Your task to perform on an android device: turn on bluetooth scan Image 0: 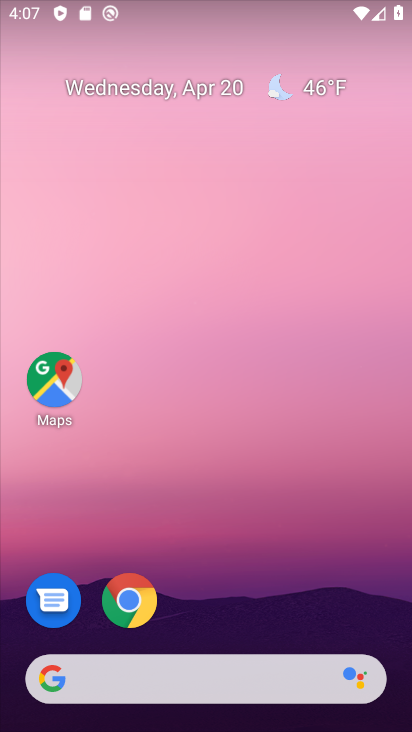
Step 0: drag from (234, 581) to (247, 40)
Your task to perform on an android device: turn on bluetooth scan Image 1: 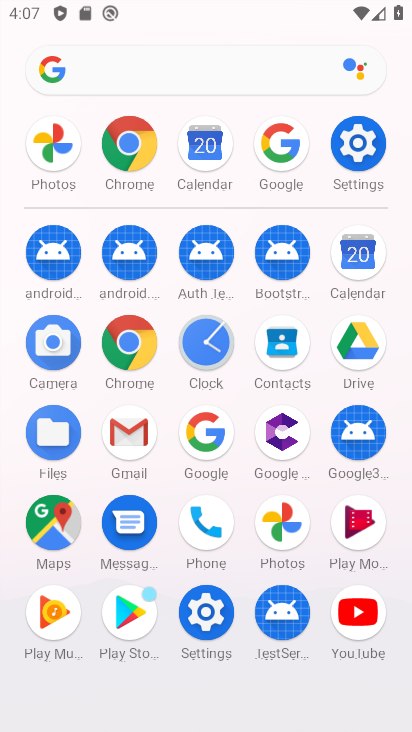
Step 1: click (196, 619)
Your task to perform on an android device: turn on bluetooth scan Image 2: 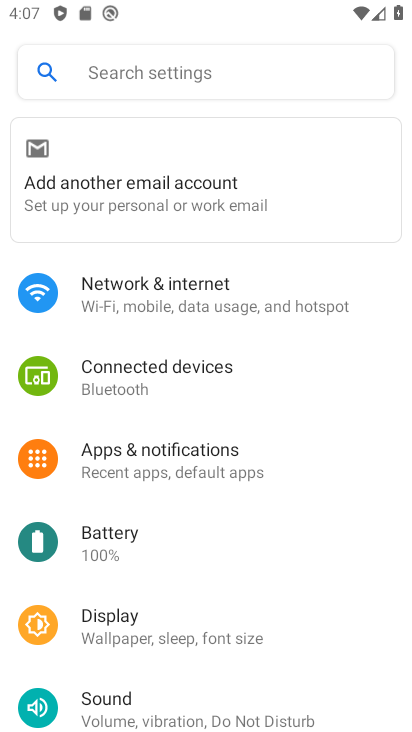
Step 2: drag from (190, 540) to (203, 164)
Your task to perform on an android device: turn on bluetooth scan Image 3: 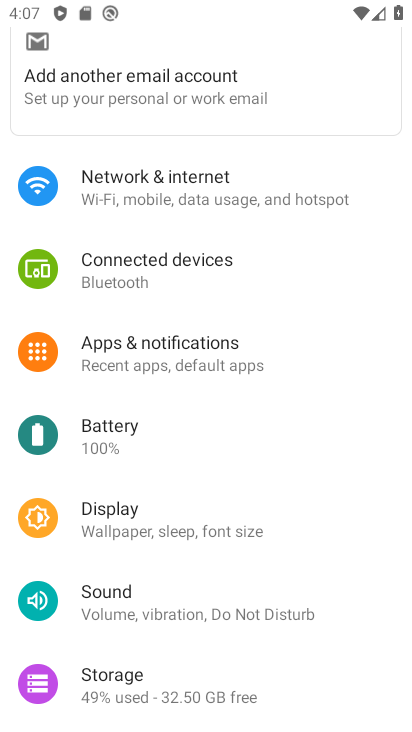
Step 3: drag from (229, 587) to (249, 153)
Your task to perform on an android device: turn on bluetooth scan Image 4: 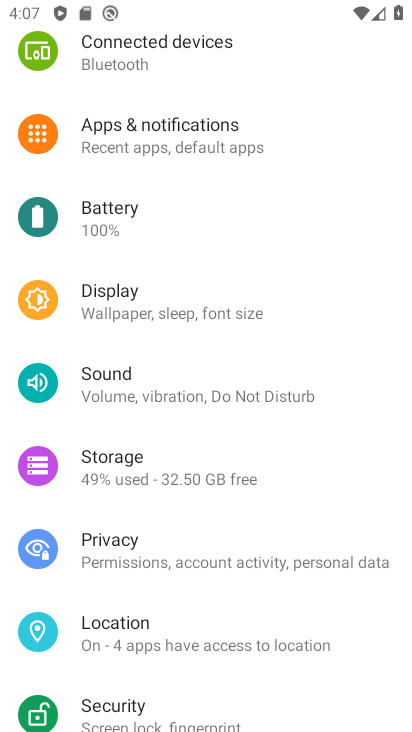
Step 4: drag from (224, 625) to (222, 373)
Your task to perform on an android device: turn on bluetooth scan Image 5: 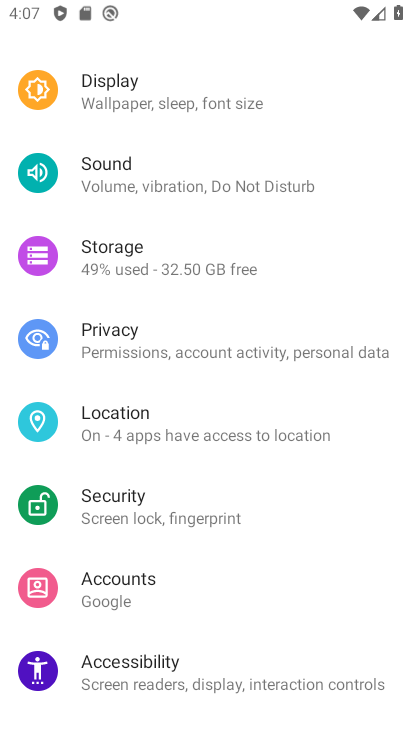
Step 5: click (166, 424)
Your task to perform on an android device: turn on bluetooth scan Image 6: 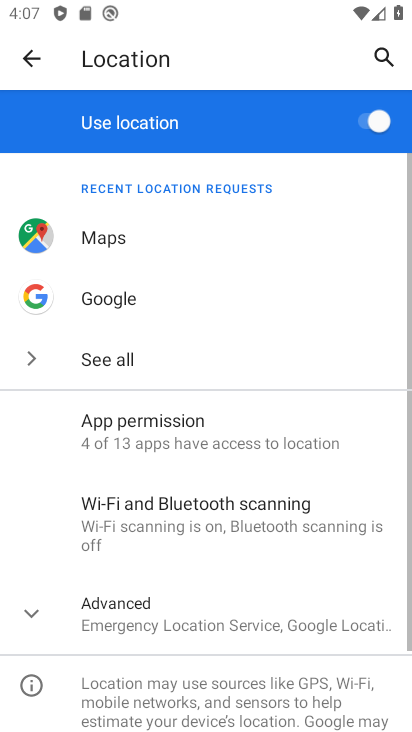
Step 6: click (194, 520)
Your task to perform on an android device: turn on bluetooth scan Image 7: 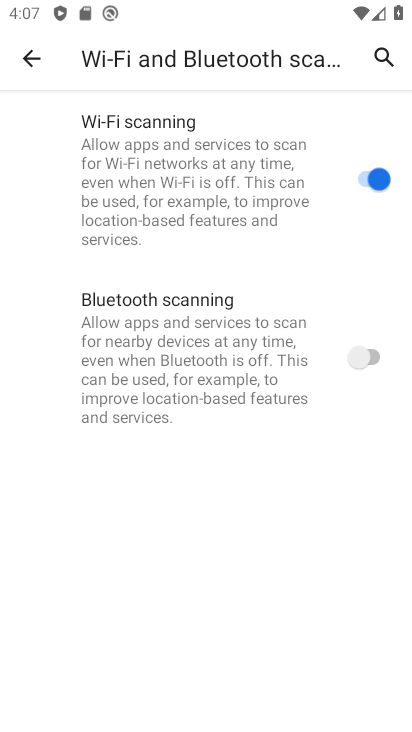
Step 7: click (370, 345)
Your task to perform on an android device: turn on bluetooth scan Image 8: 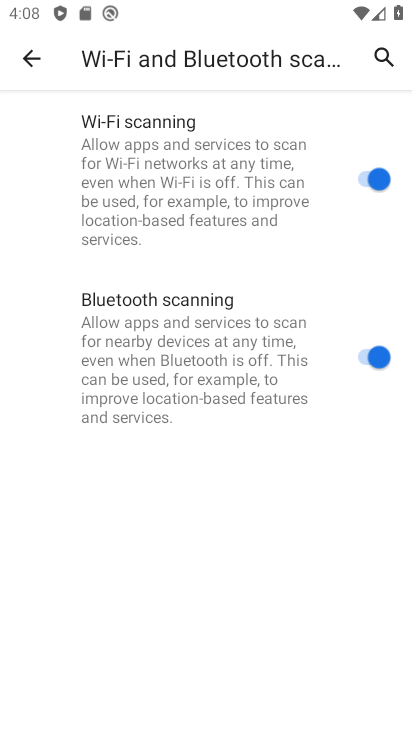
Step 8: task complete